Your task to perform on an android device: Open Youtube and go to "Your channel" Image 0: 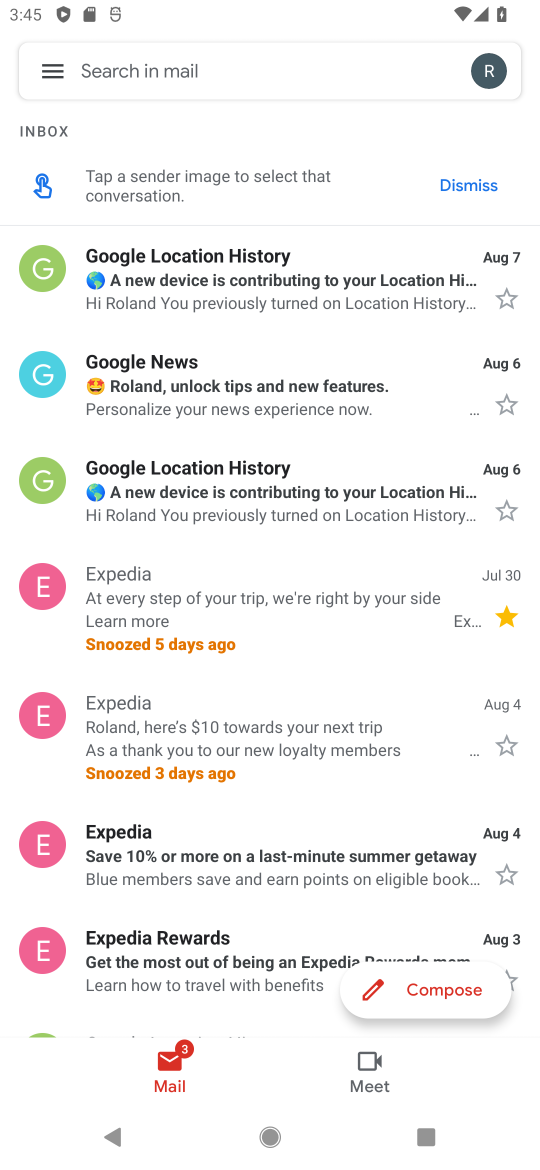
Step 0: click (532, 747)
Your task to perform on an android device: Open Youtube and go to "Your channel" Image 1: 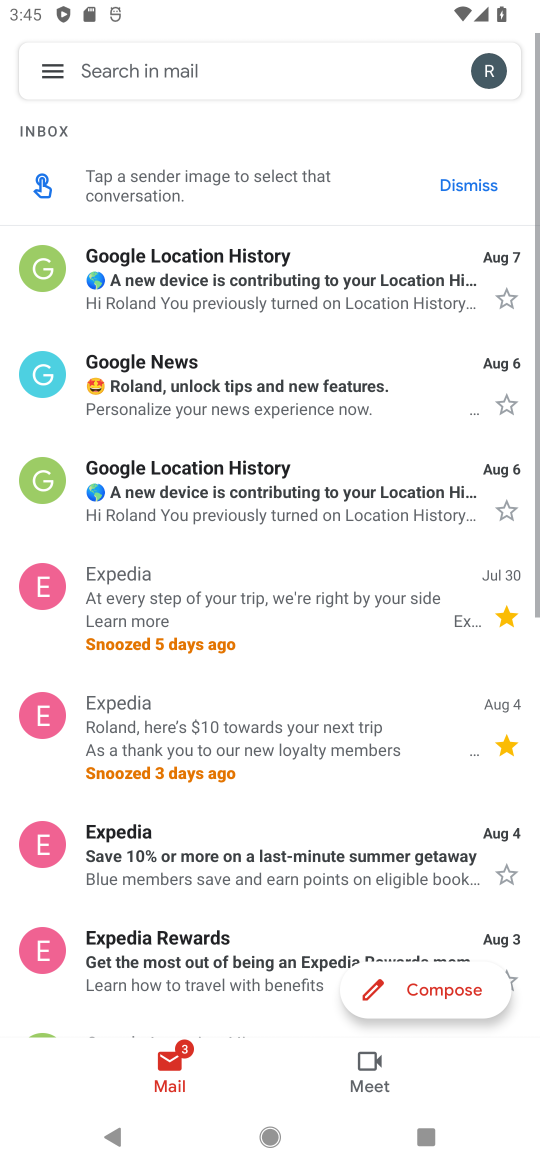
Step 1: press home button
Your task to perform on an android device: Open Youtube and go to "Your channel" Image 2: 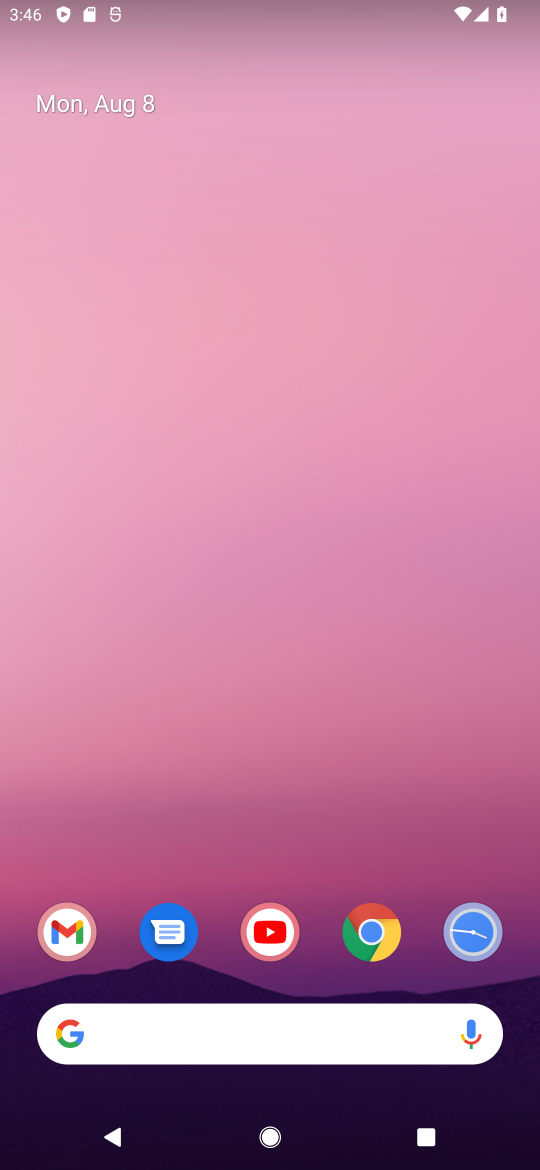
Step 2: click (269, 951)
Your task to perform on an android device: Open Youtube and go to "Your channel" Image 3: 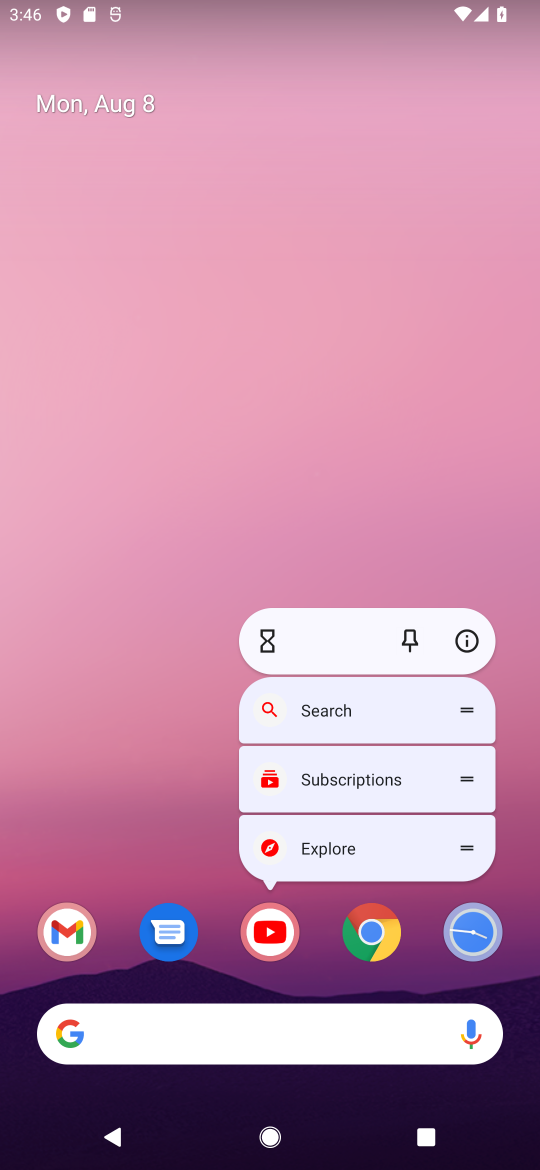
Step 3: click (269, 951)
Your task to perform on an android device: Open Youtube and go to "Your channel" Image 4: 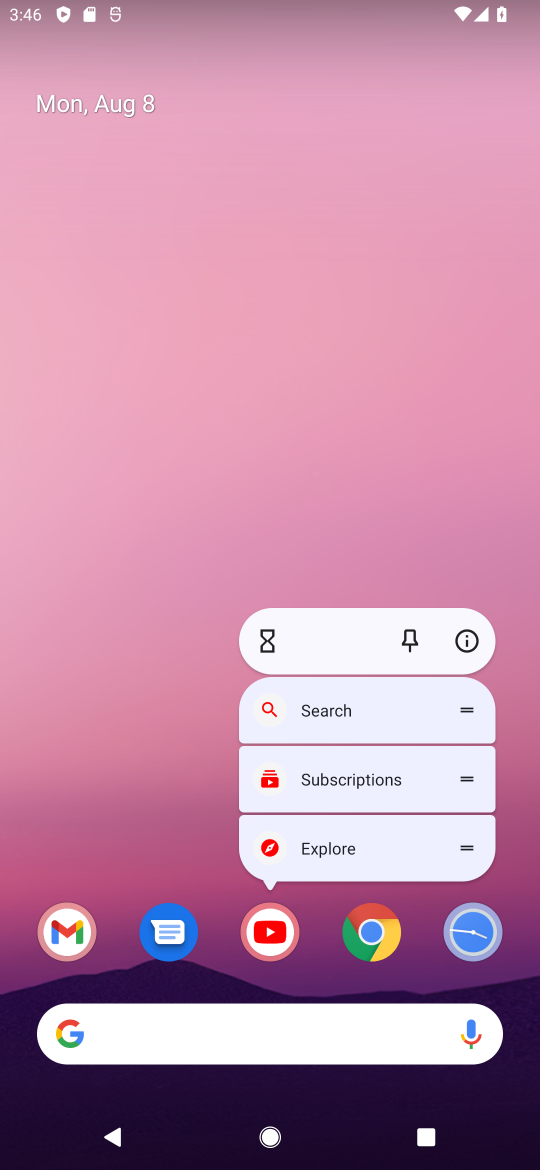
Step 4: click (269, 951)
Your task to perform on an android device: Open Youtube and go to "Your channel" Image 5: 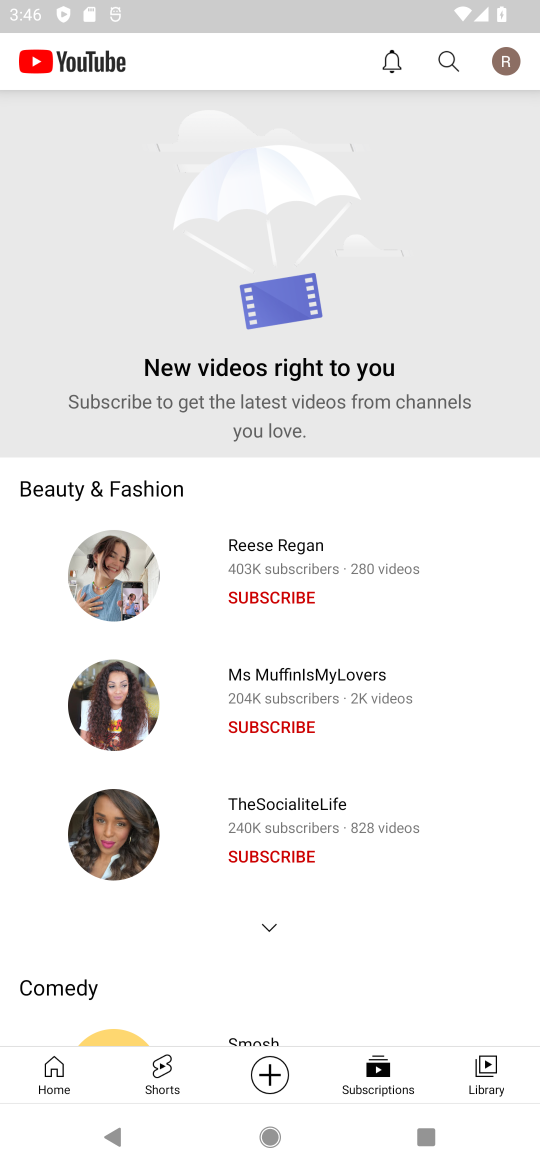
Step 5: click (504, 54)
Your task to perform on an android device: Open Youtube and go to "Your channel" Image 6: 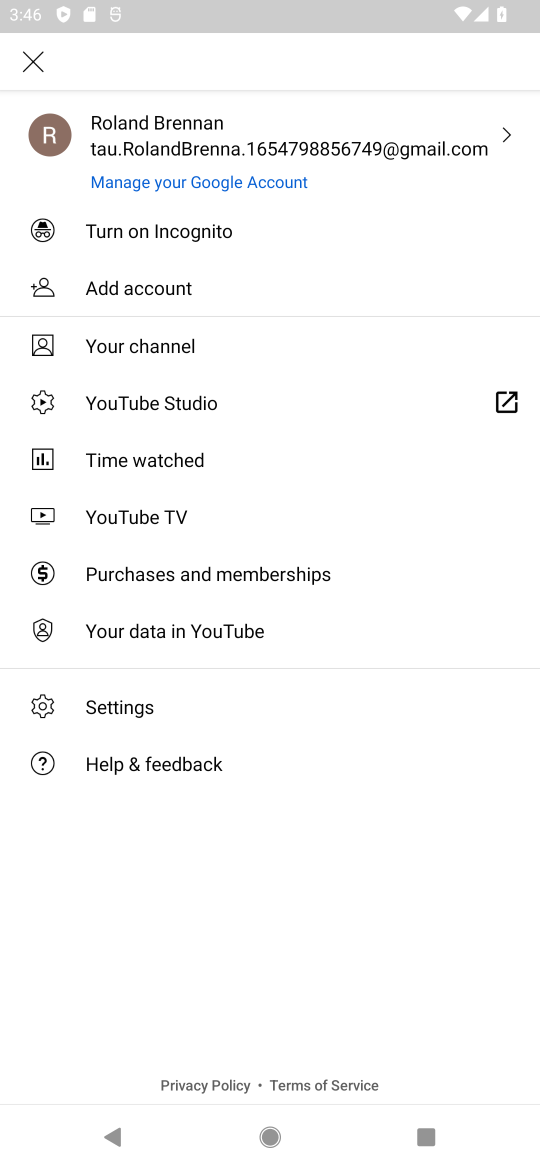
Step 6: click (202, 342)
Your task to perform on an android device: Open Youtube and go to "Your channel" Image 7: 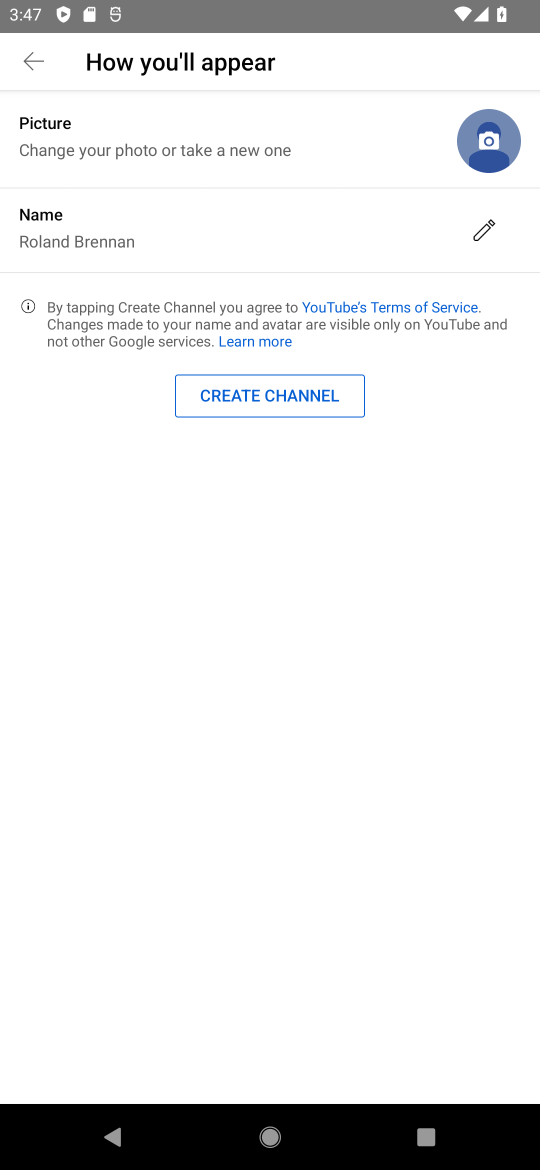
Step 7: task complete